Your task to perform on an android device: Go to Google Image 0: 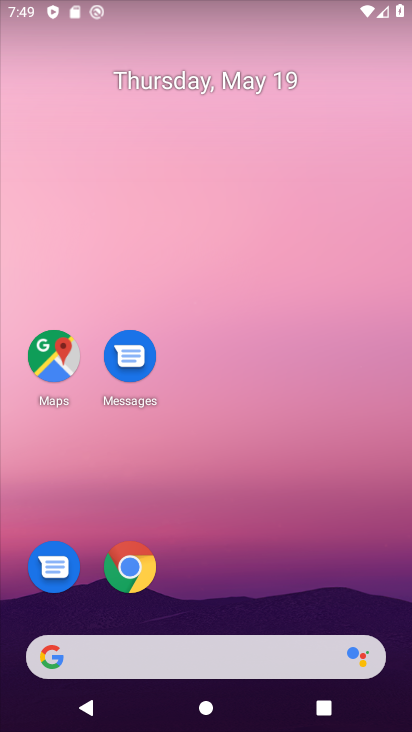
Step 0: drag from (190, 610) to (174, 59)
Your task to perform on an android device: Go to Google Image 1: 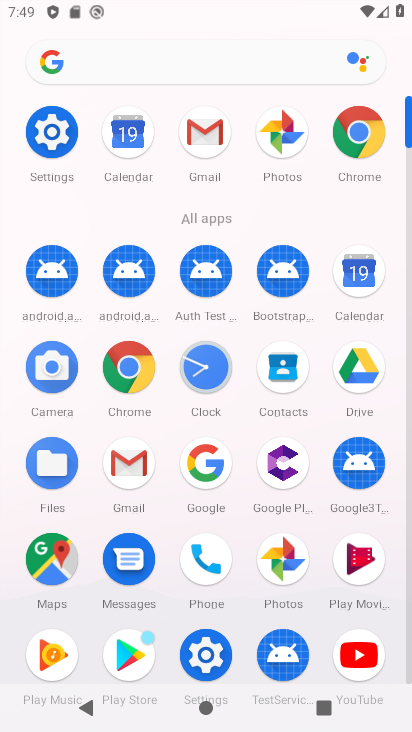
Step 1: click (210, 459)
Your task to perform on an android device: Go to Google Image 2: 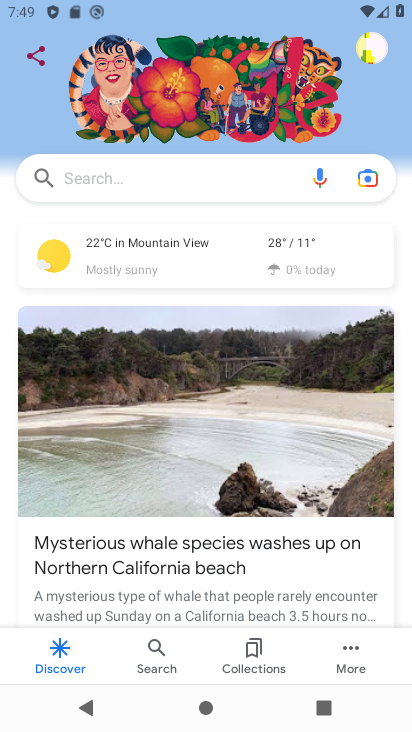
Step 2: task complete